Your task to perform on an android device: turn pop-ups on in chrome Image 0: 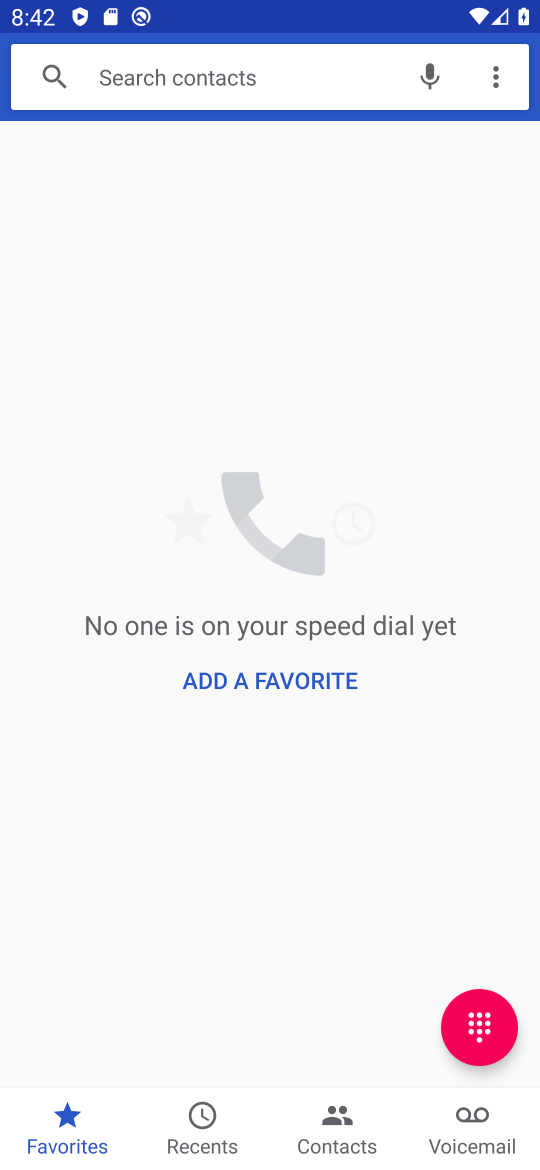
Step 0: press home button
Your task to perform on an android device: turn pop-ups on in chrome Image 1: 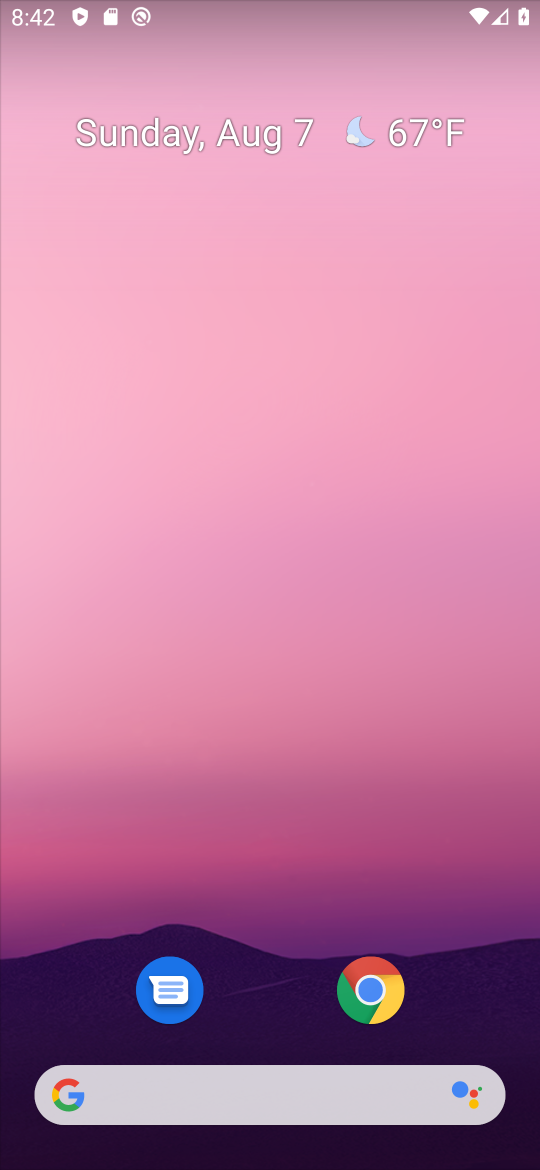
Step 1: click (364, 1003)
Your task to perform on an android device: turn pop-ups on in chrome Image 2: 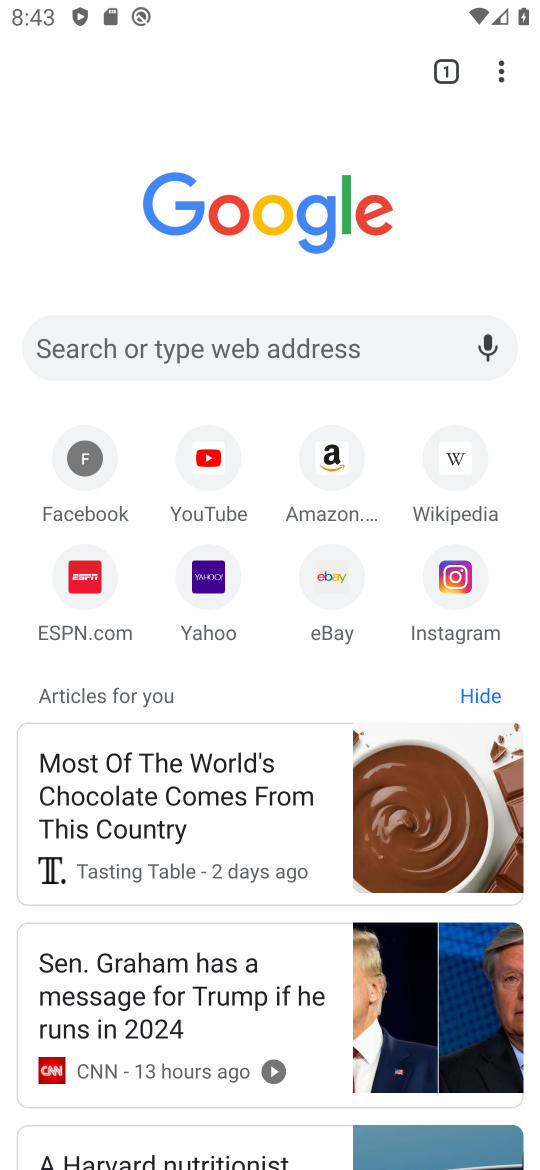
Step 2: click (495, 71)
Your task to perform on an android device: turn pop-ups on in chrome Image 3: 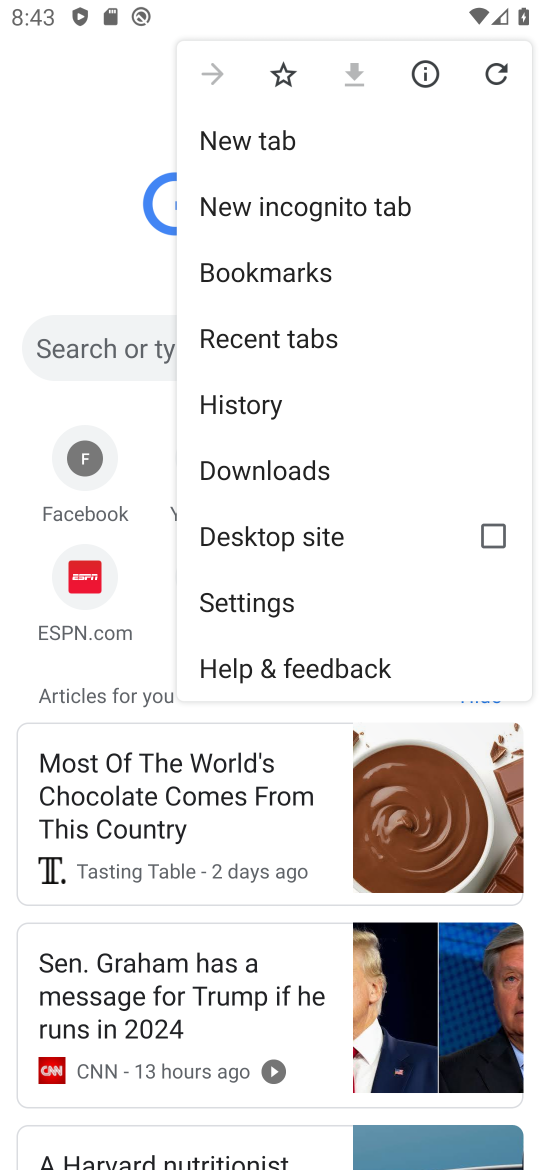
Step 3: click (290, 591)
Your task to perform on an android device: turn pop-ups on in chrome Image 4: 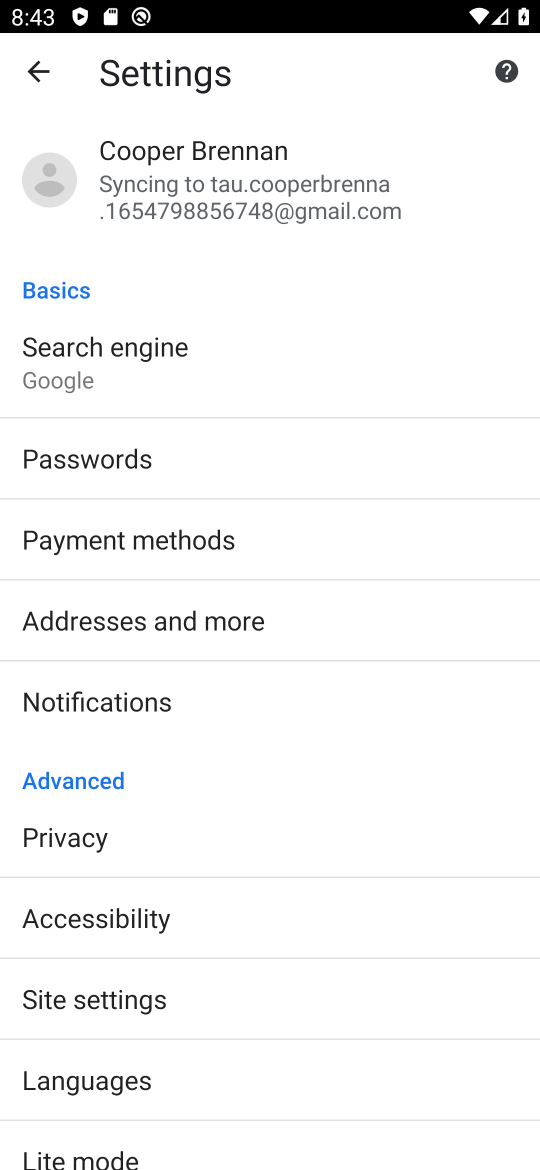
Step 4: drag from (319, 854) to (303, 401)
Your task to perform on an android device: turn pop-ups on in chrome Image 5: 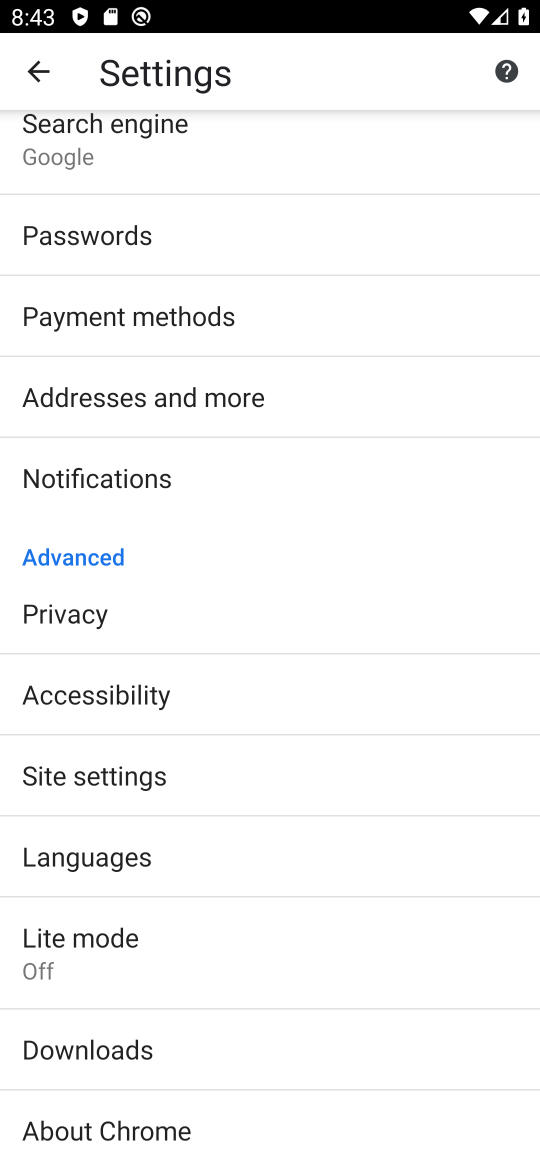
Step 5: click (154, 771)
Your task to perform on an android device: turn pop-ups on in chrome Image 6: 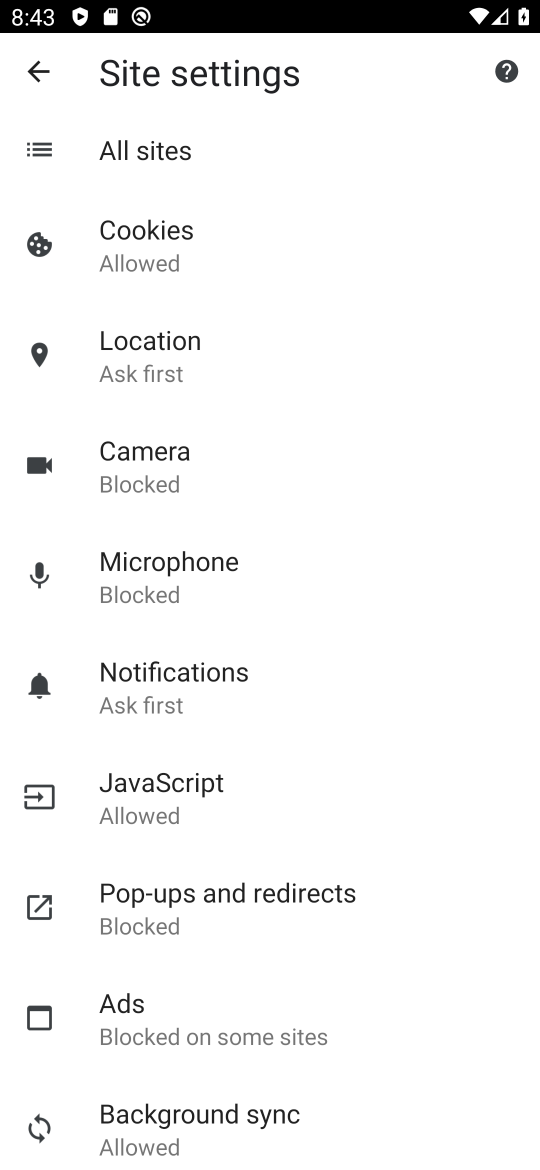
Step 6: click (320, 897)
Your task to perform on an android device: turn pop-ups on in chrome Image 7: 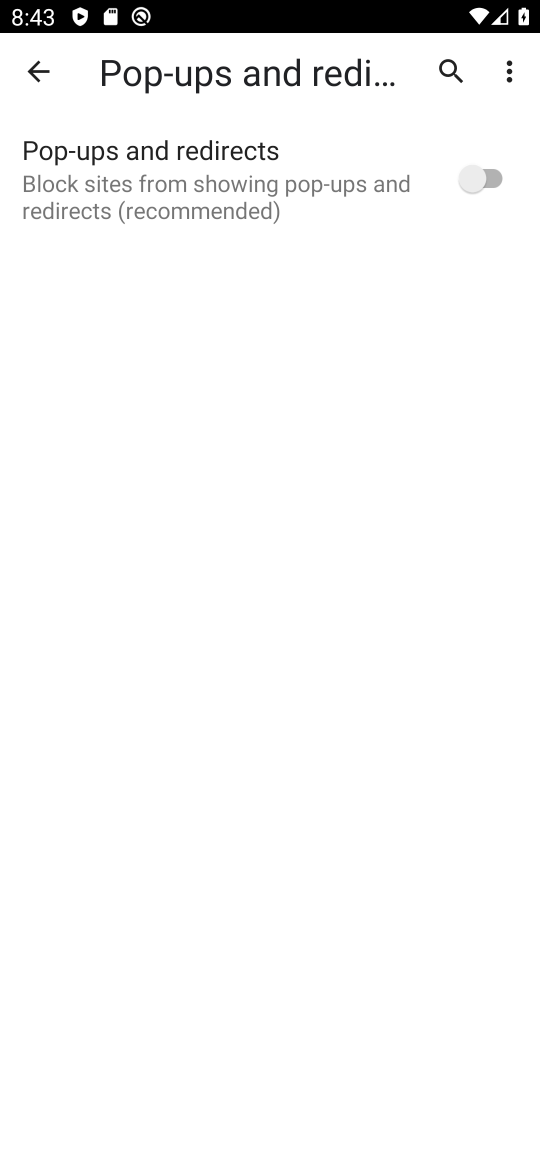
Step 7: click (474, 177)
Your task to perform on an android device: turn pop-ups on in chrome Image 8: 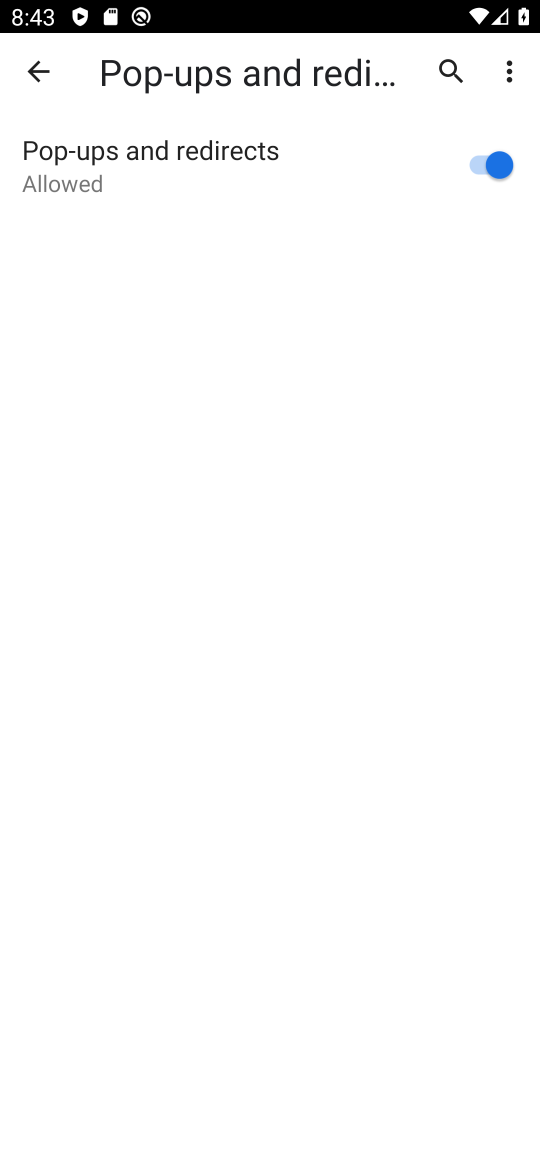
Step 8: task complete